Your task to perform on an android device: toggle wifi Image 0: 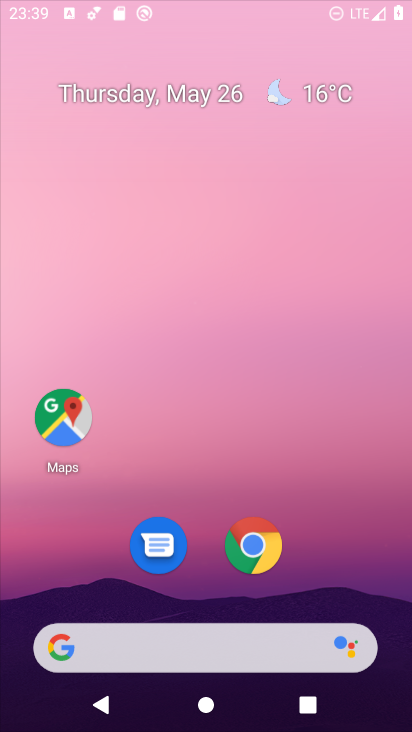
Step 0: press home button
Your task to perform on an android device: toggle wifi Image 1: 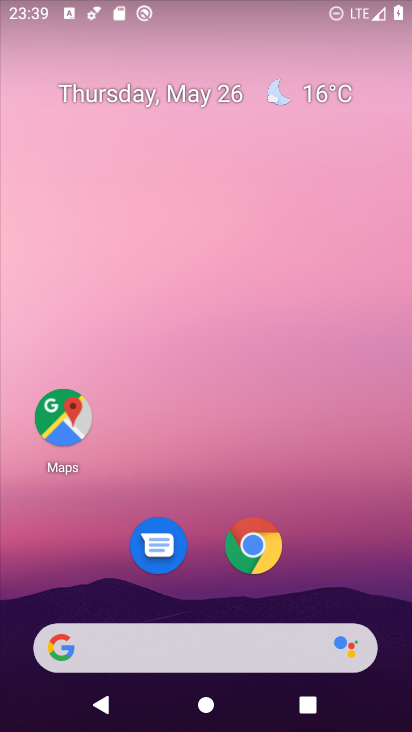
Step 1: drag from (194, 11) to (199, 336)
Your task to perform on an android device: toggle wifi Image 2: 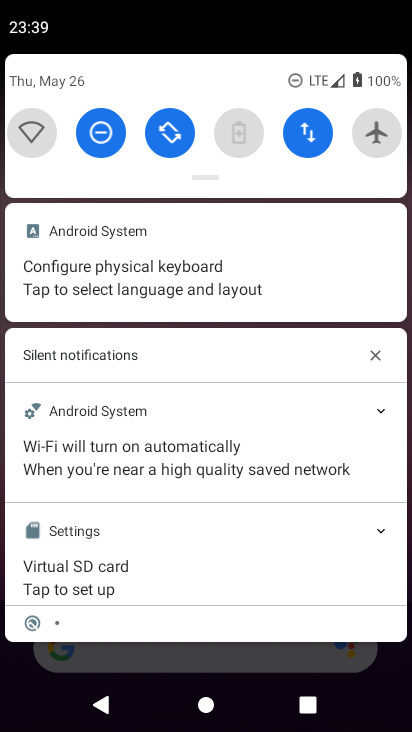
Step 2: click (28, 128)
Your task to perform on an android device: toggle wifi Image 3: 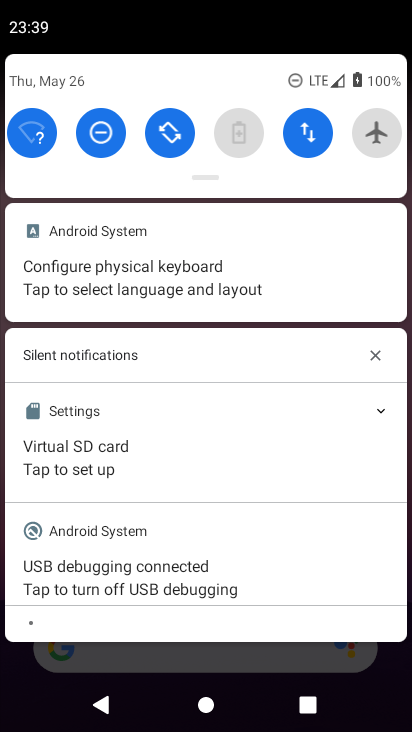
Step 3: task complete